Your task to perform on an android device: see tabs open on other devices in the chrome app Image 0: 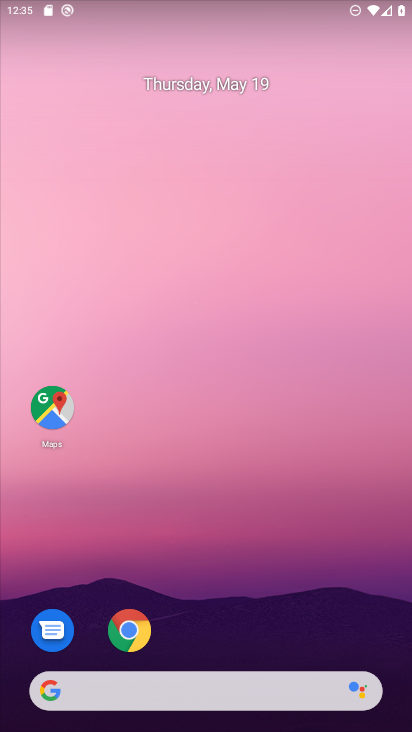
Step 0: drag from (229, 620) to (262, 311)
Your task to perform on an android device: see tabs open on other devices in the chrome app Image 1: 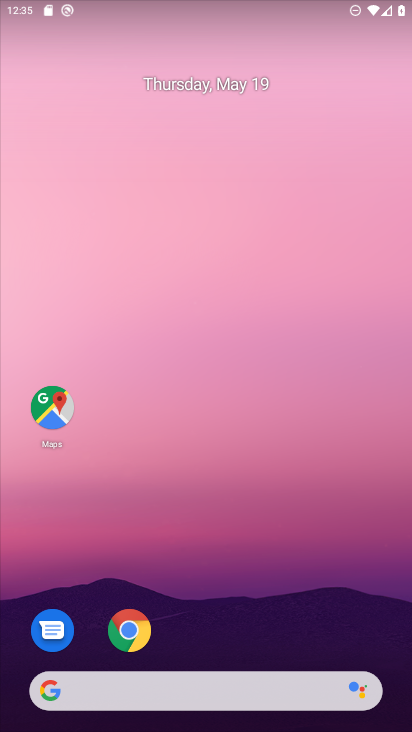
Step 1: click (132, 629)
Your task to perform on an android device: see tabs open on other devices in the chrome app Image 2: 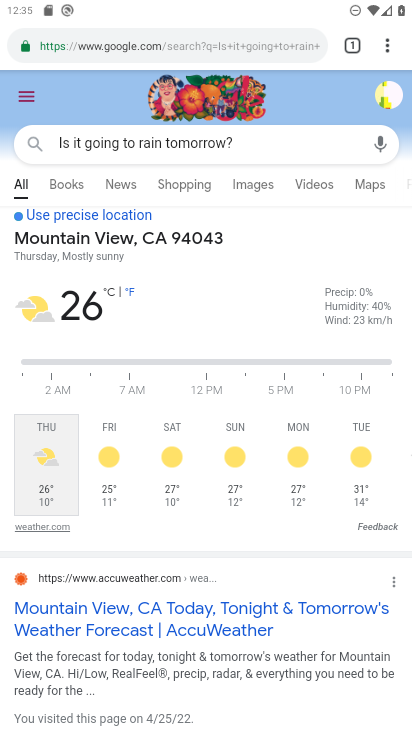
Step 2: click (360, 46)
Your task to perform on an android device: see tabs open on other devices in the chrome app Image 3: 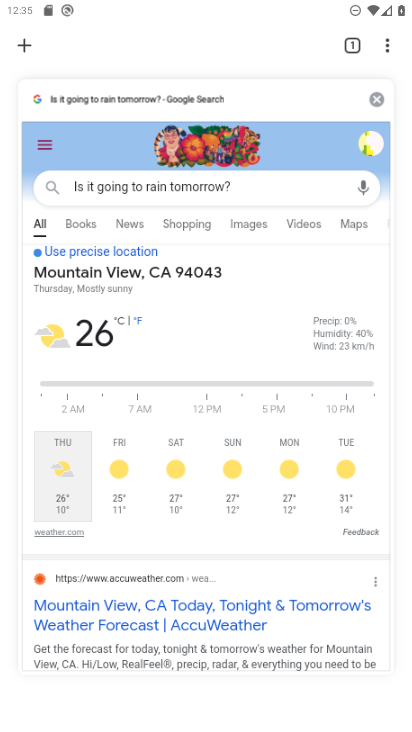
Step 3: task complete